Your task to perform on an android device: What's the weather going to be tomorrow? Image 0: 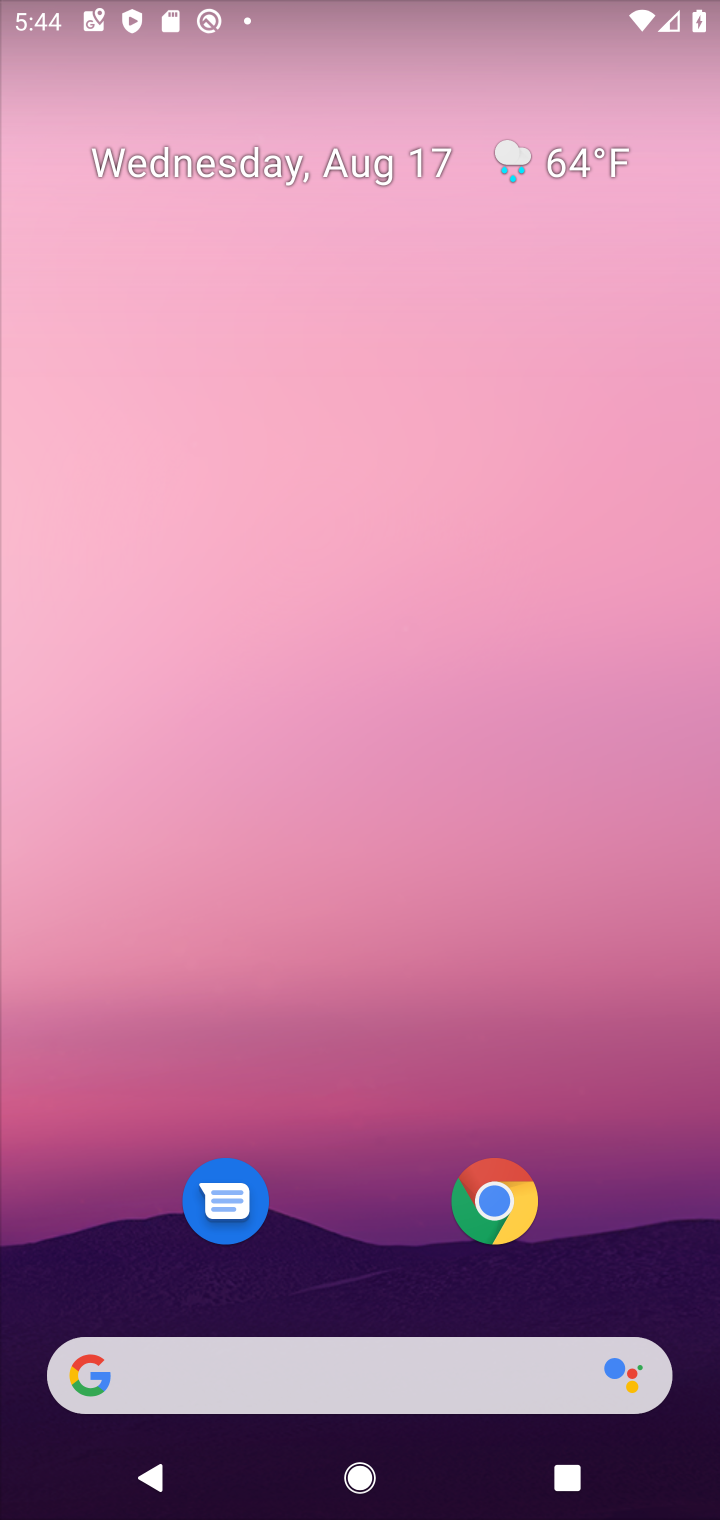
Step 0: press home button
Your task to perform on an android device: What's the weather going to be tomorrow? Image 1: 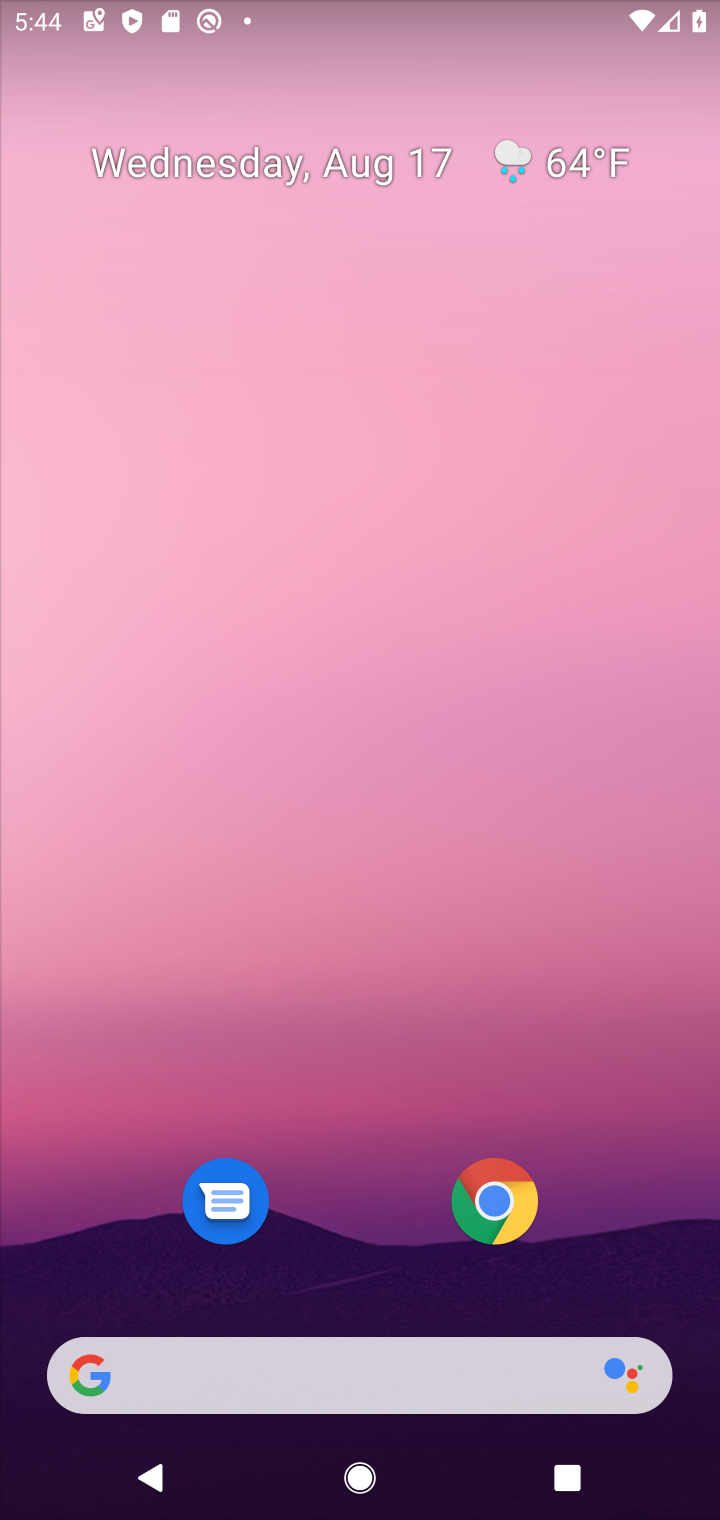
Step 1: drag from (368, 1212) to (193, 0)
Your task to perform on an android device: What's the weather going to be tomorrow? Image 2: 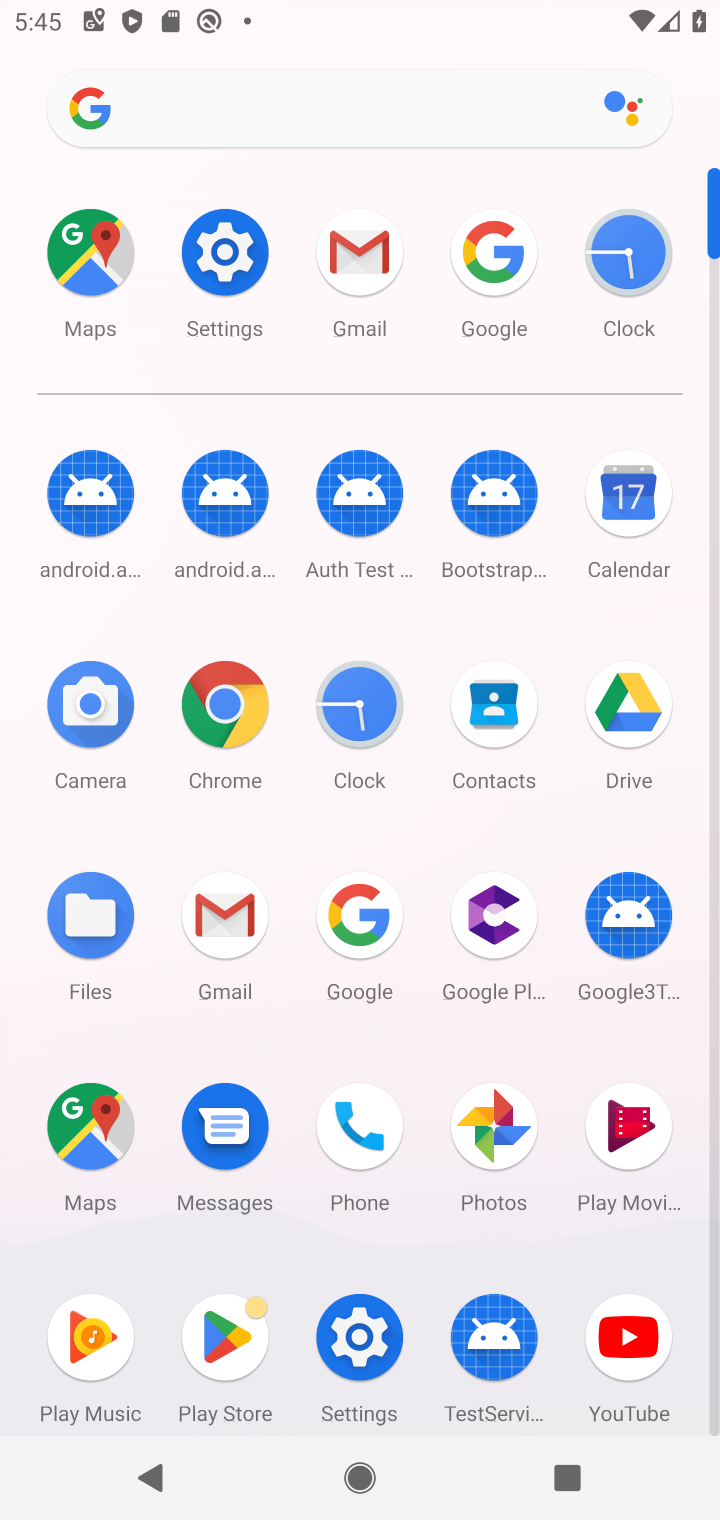
Step 2: click (501, 256)
Your task to perform on an android device: What's the weather going to be tomorrow? Image 3: 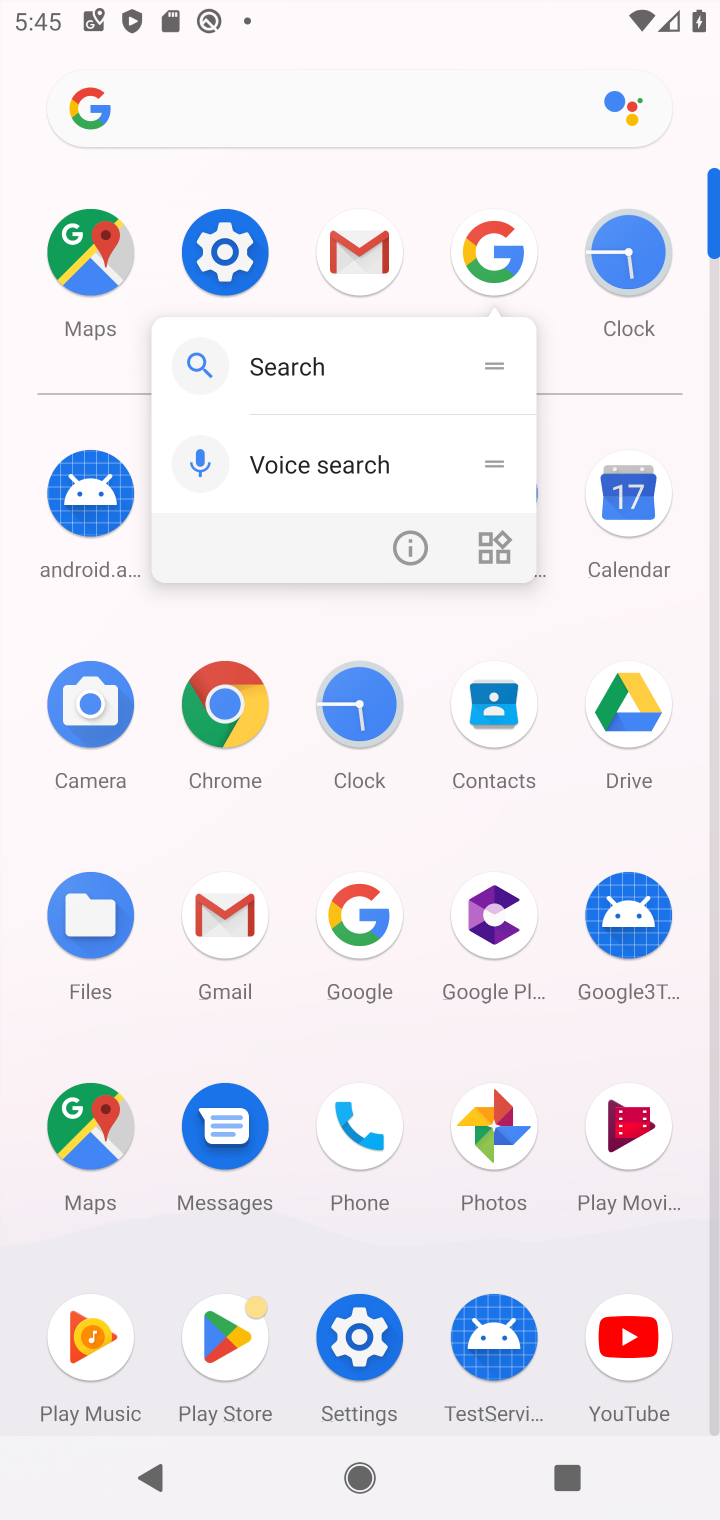
Step 3: click (494, 244)
Your task to perform on an android device: What's the weather going to be tomorrow? Image 4: 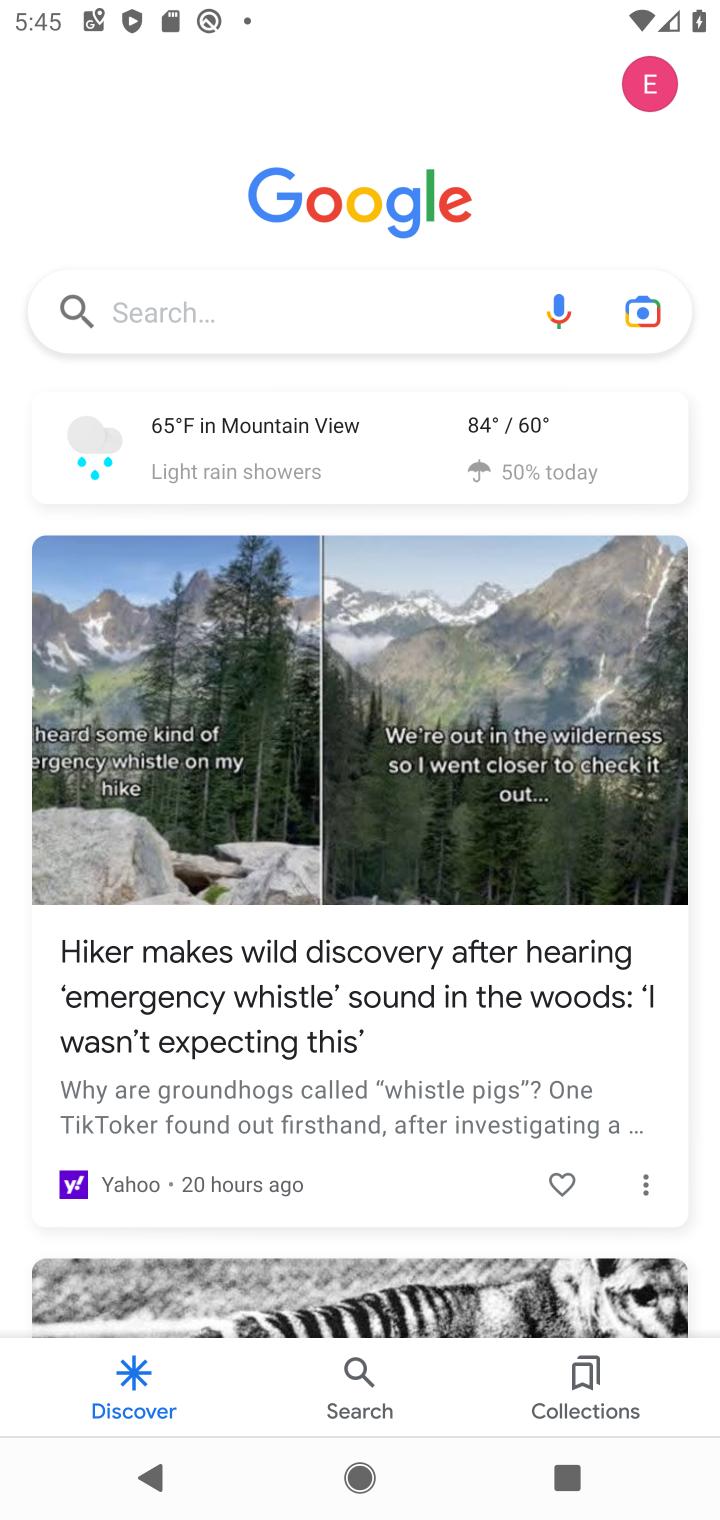
Step 4: click (116, 318)
Your task to perform on an android device: What's the weather going to be tomorrow? Image 5: 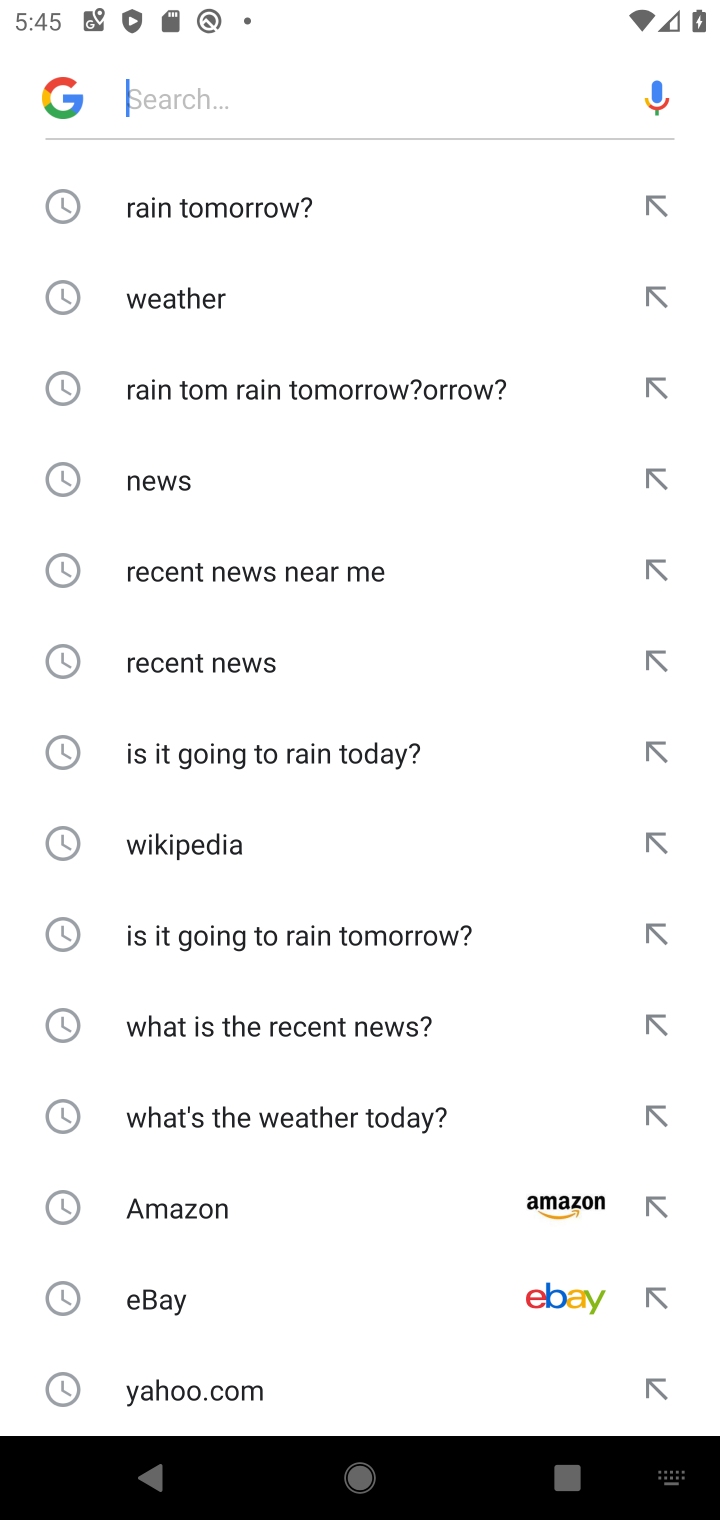
Step 5: type "What's the weather going to be tomorrow?"
Your task to perform on an android device: What's the weather going to be tomorrow? Image 6: 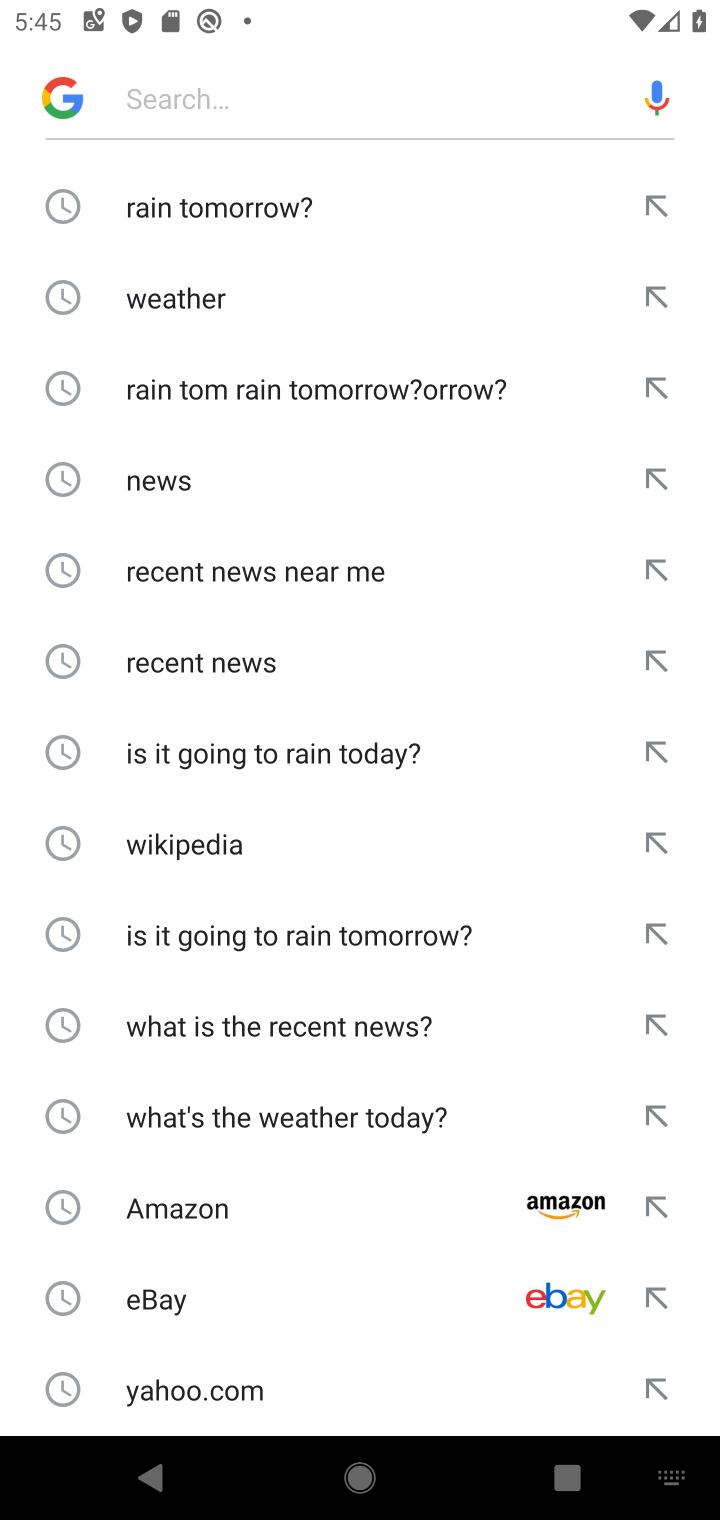
Step 6: click (200, 113)
Your task to perform on an android device: What's the weather going to be tomorrow? Image 7: 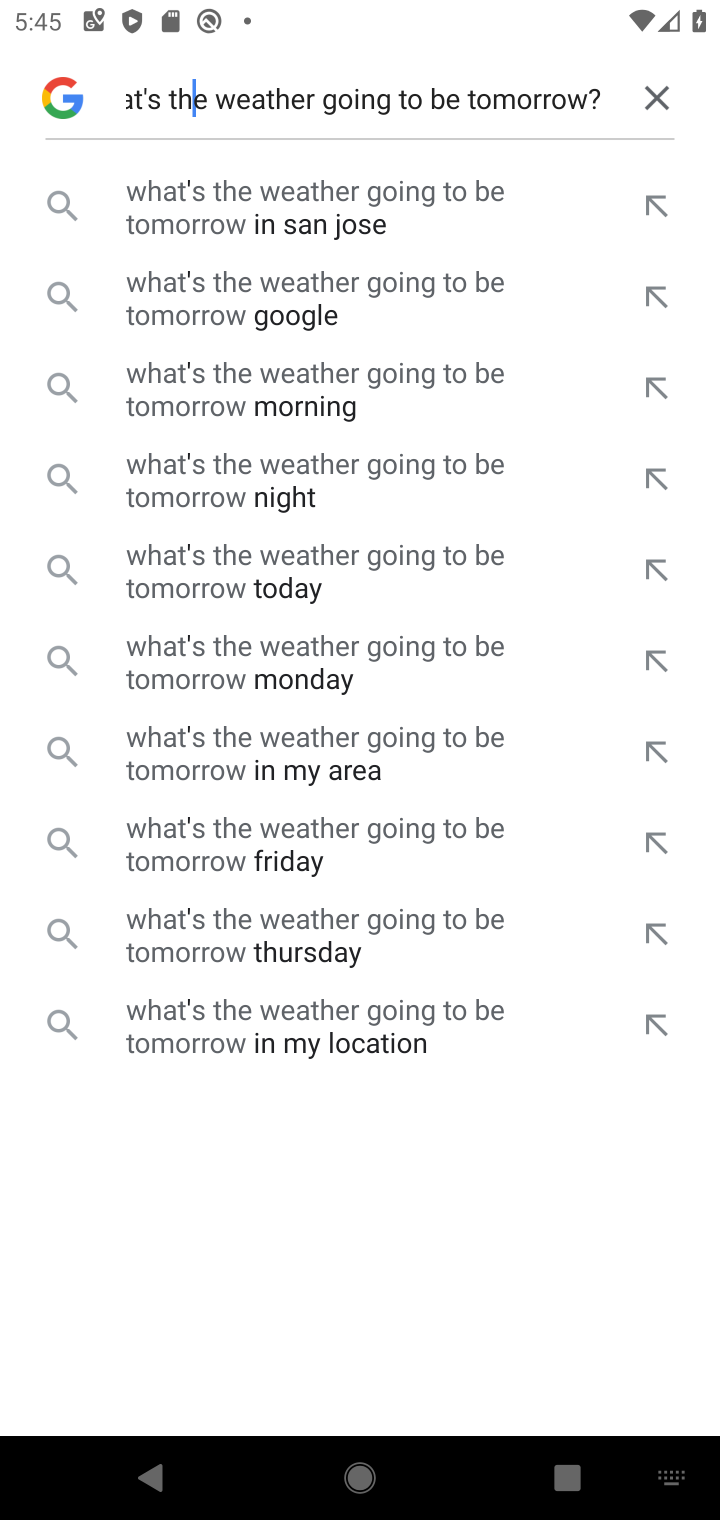
Step 7: press enter
Your task to perform on an android device: What's the weather going to be tomorrow? Image 8: 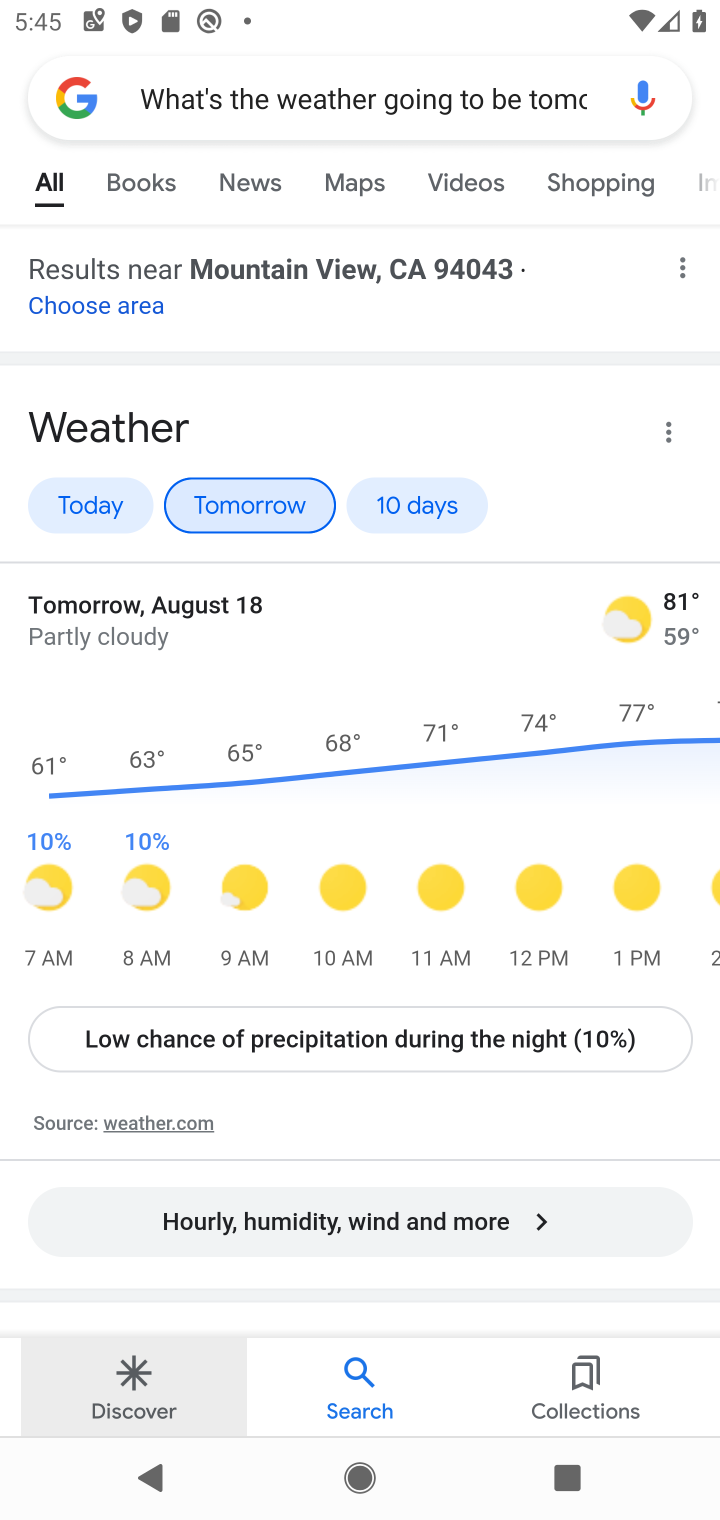
Step 8: task complete